Your task to perform on an android device: Check the weather Image 0: 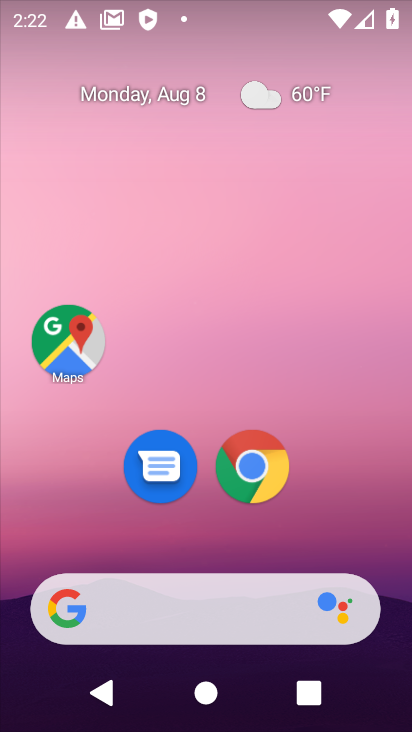
Step 0: click (269, 108)
Your task to perform on an android device: Check the weather Image 1: 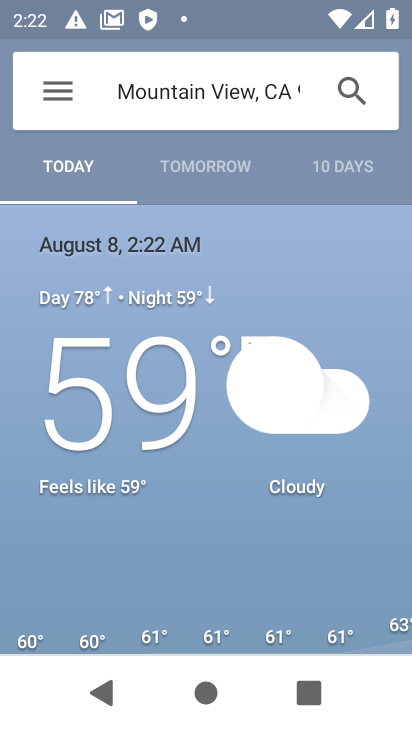
Step 1: task complete